Your task to perform on an android device: turn on translation in the chrome app Image 0: 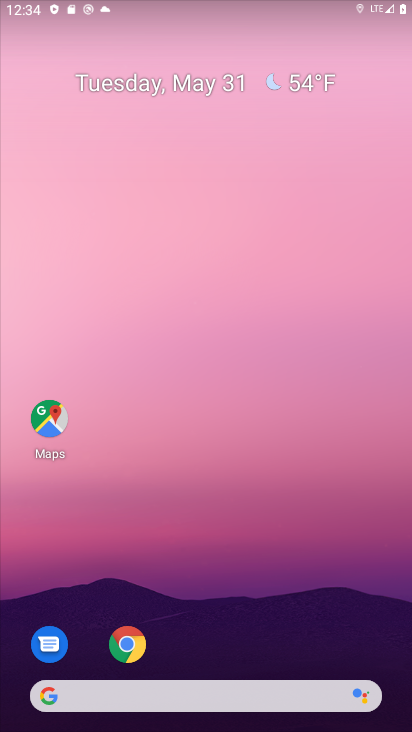
Step 0: press home button
Your task to perform on an android device: turn on translation in the chrome app Image 1: 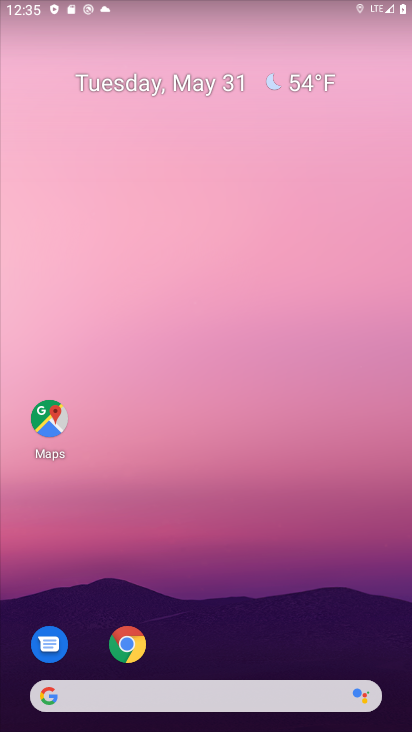
Step 1: click (122, 642)
Your task to perform on an android device: turn on translation in the chrome app Image 2: 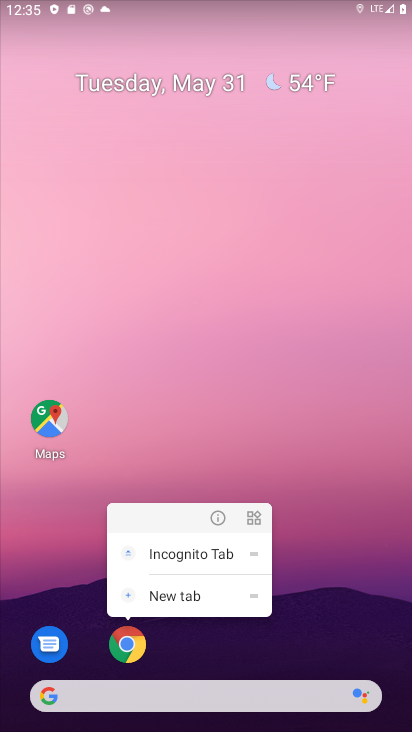
Step 2: click (122, 649)
Your task to perform on an android device: turn on translation in the chrome app Image 3: 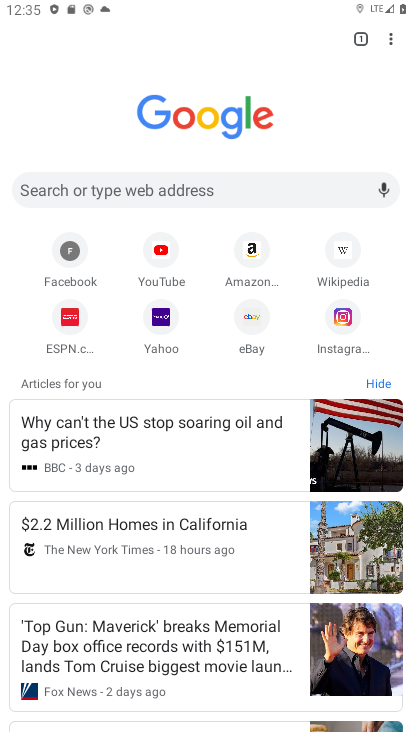
Step 3: click (390, 35)
Your task to perform on an android device: turn on translation in the chrome app Image 4: 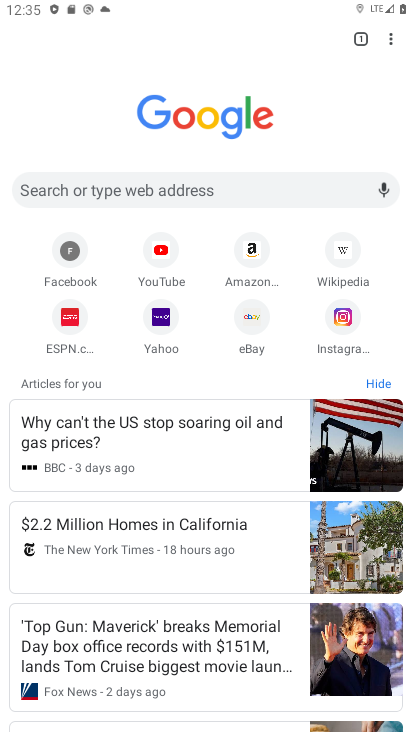
Step 4: drag from (390, 35) to (249, 327)
Your task to perform on an android device: turn on translation in the chrome app Image 5: 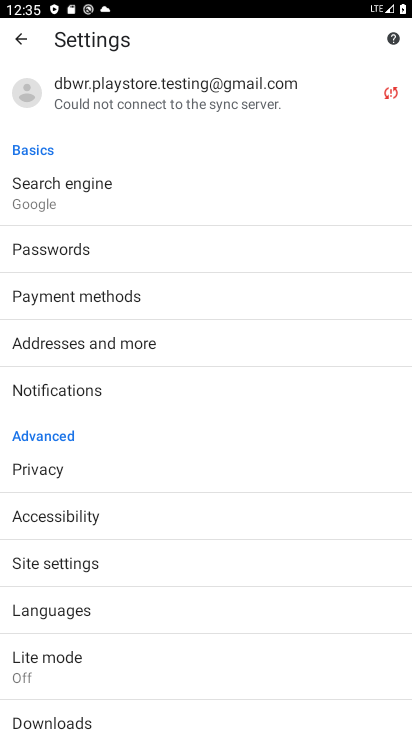
Step 5: drag from (96, 663) to (149, 492)
Your task to perform on an android device: turn on translation in the chrome app Image 6: 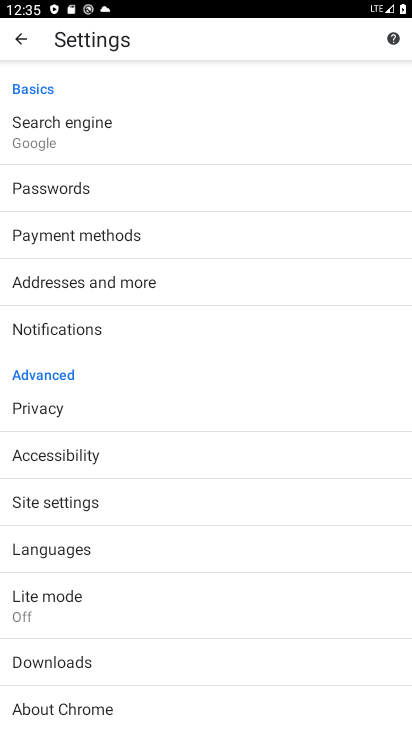
Step 6: click (52, 556)
Your task to perform on an android device: turn on translation in the chrome app Image 7: 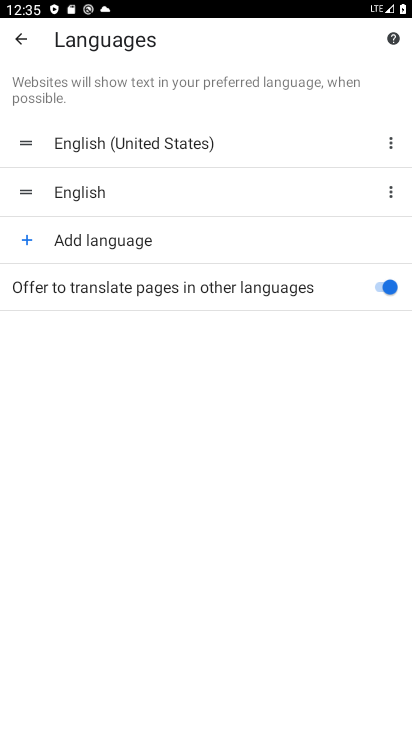
Step 7: task complete